Your task to perform on an android device: Open Google Image 0: 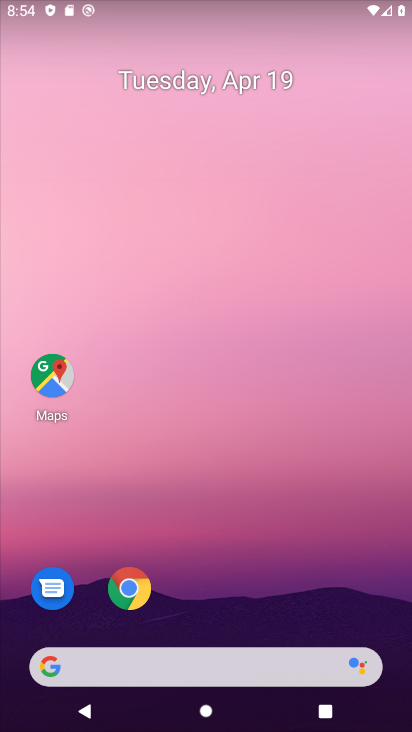
Step 0: drag from (213, 598) to (322, 70)
Your task to perform on an android device: Open Google Image 1: 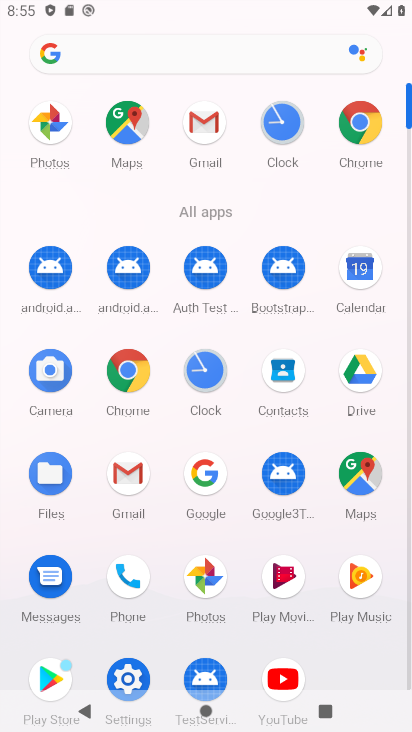
Step 1: click (205, 472)
Your task to perform on an android device: Open Google Image 2: 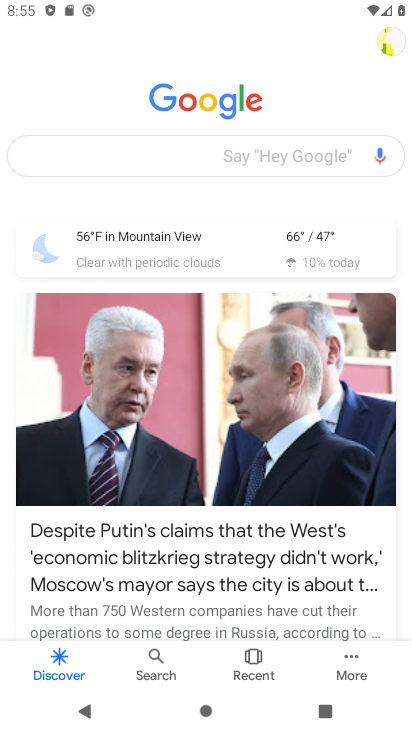
Step 2: task complete